Your task to perform on an android device: Go to Amazon Image 0: 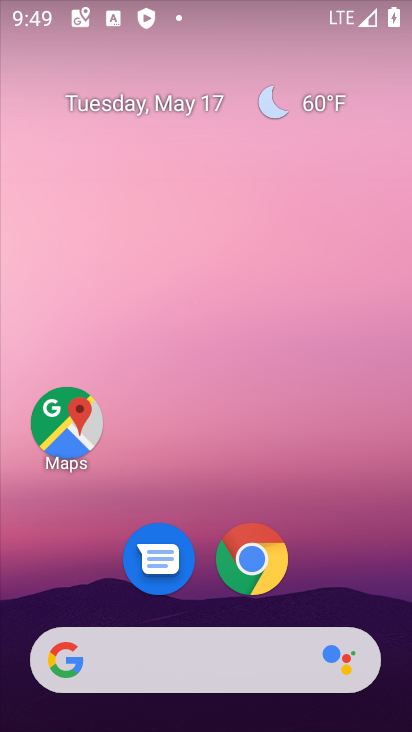
Step 0: click (233, 579)
Your task to perform on an android device: Go to Amazon Image 1: 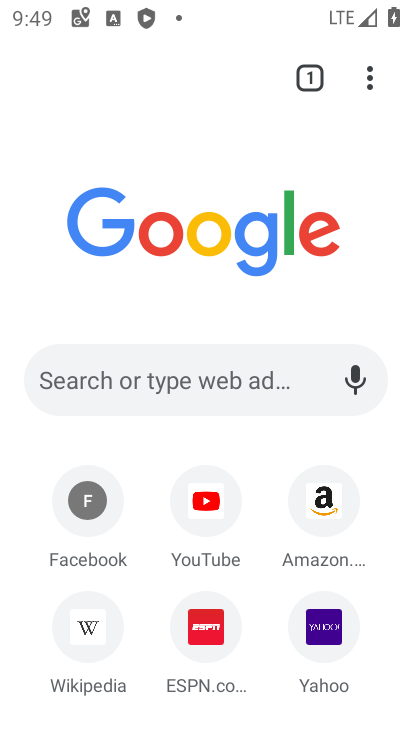
Step 1: click (296, 533)
Your task to perform on an android device: Go to Amazon Image 2: 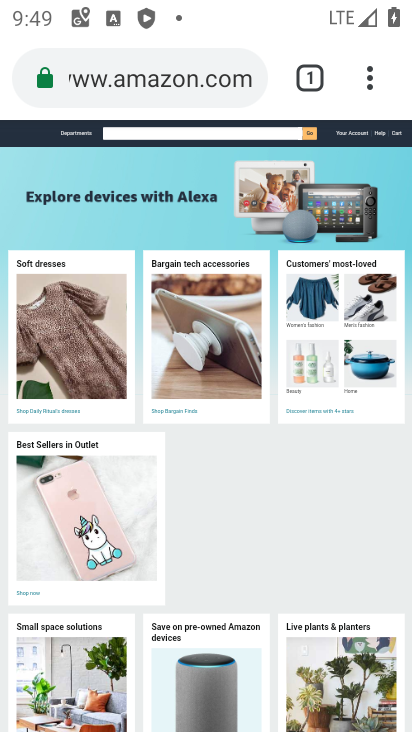
Step 2: task complete